Your task to perform on an android device: toggle notification dots Image 0: 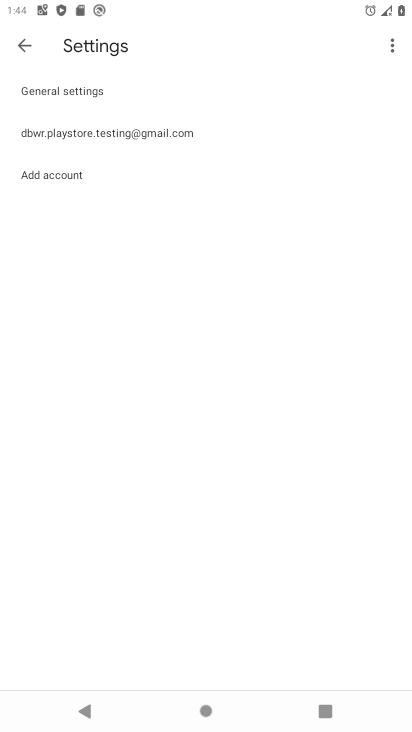
Step 0: press back button
Your task to perform on an android device: toggle notification dots Image 1: 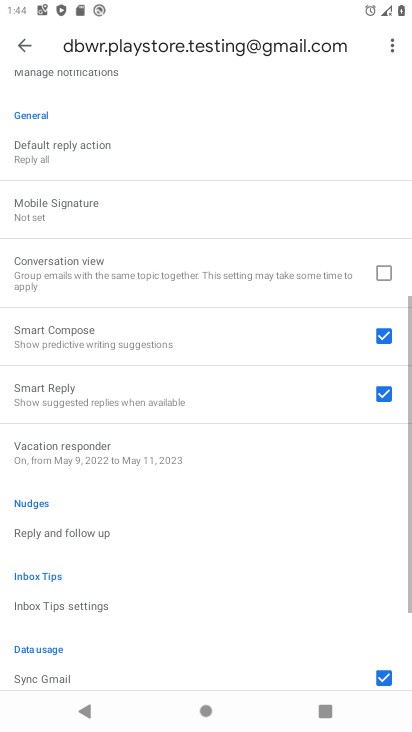
Step 1: press back button
Your task to perform on an android device: toggle notification dots Image 2: 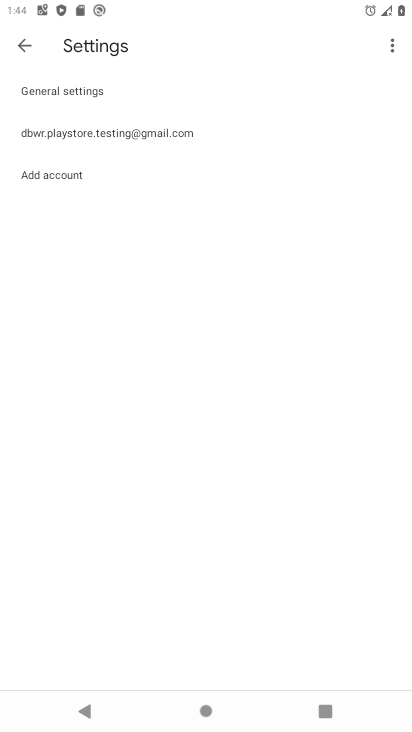
Step 2: press home button
Your task to perform on an android device: toggle notification dots Image 3: 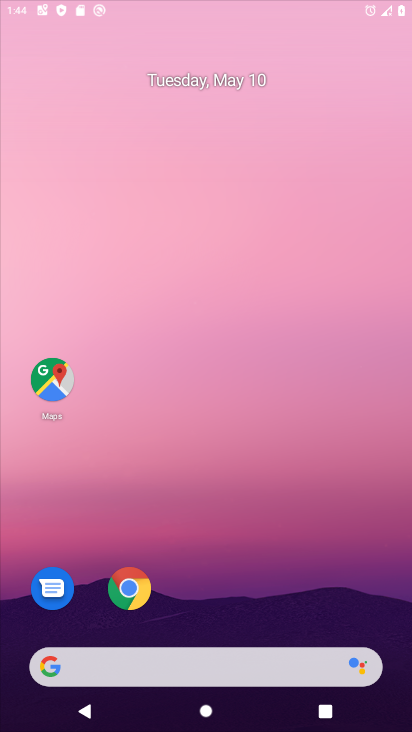
Step 3: drag from (256, 646) to (292, 251)
Your task to perform on an android device: toggle notification dots Image 4: 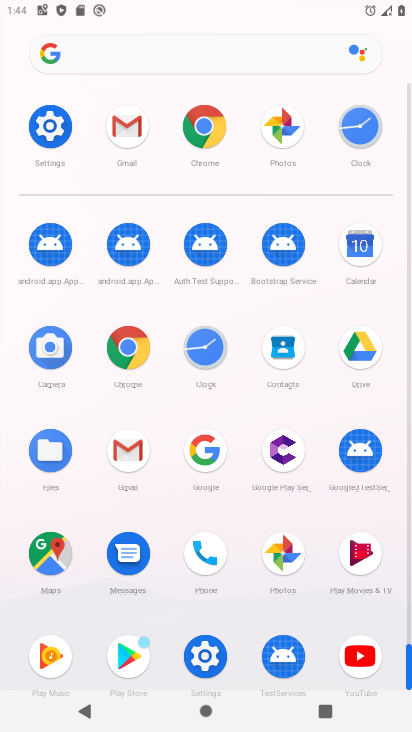
Step 4: click (55, 114)
Your task to perform on an android device: toggle notification dots Image 5: 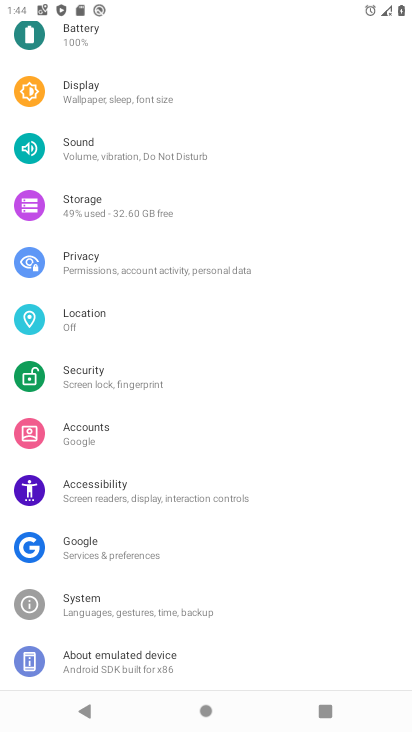
Step 5: drag from (196, 109) to (197, 544)
Your task to perform on an android device: toggle notification dots Image 6: 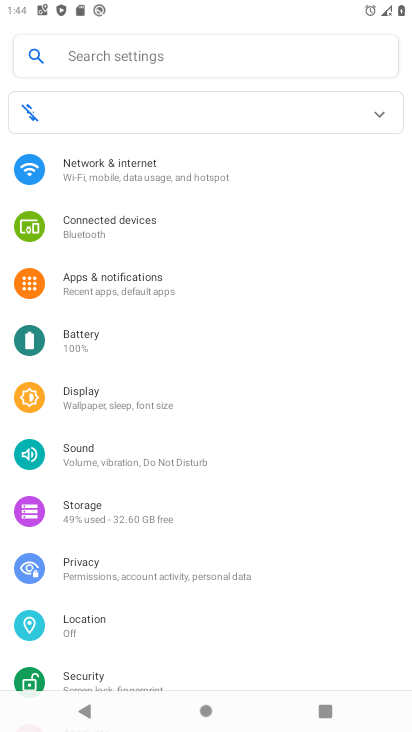
Step 6: click (209, 58)
Your task to perform on an android device: toggle notification dots Image 7: 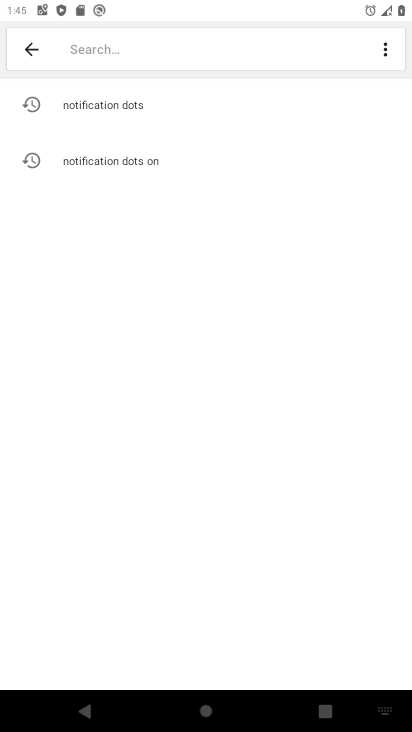
Step 7: click (121, 97)
Your task to perform on an android device: toggle notification dots Image 8: 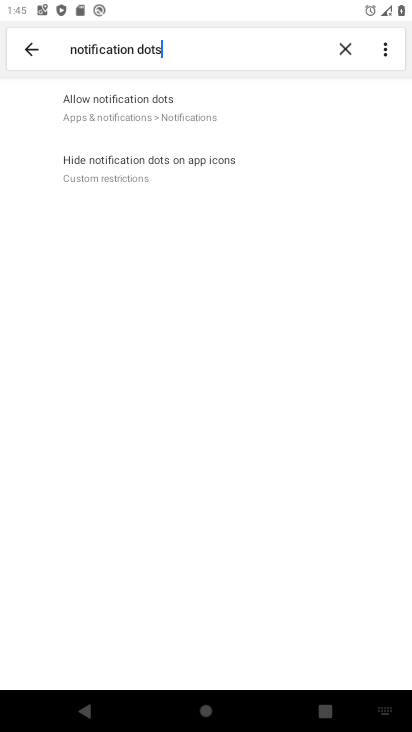
Step 8: click (174, 104)
Your task to perform on an android device: toggle notification dots Image 9: 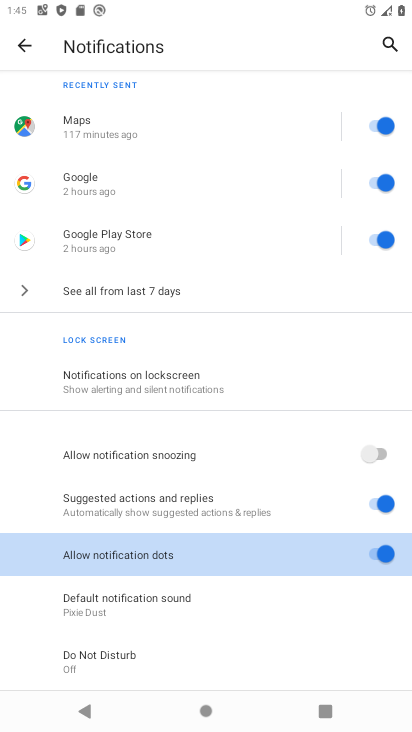
Step 9: click (366, 555)
Your task to perform on an android device: toggle notification dots Image 10: 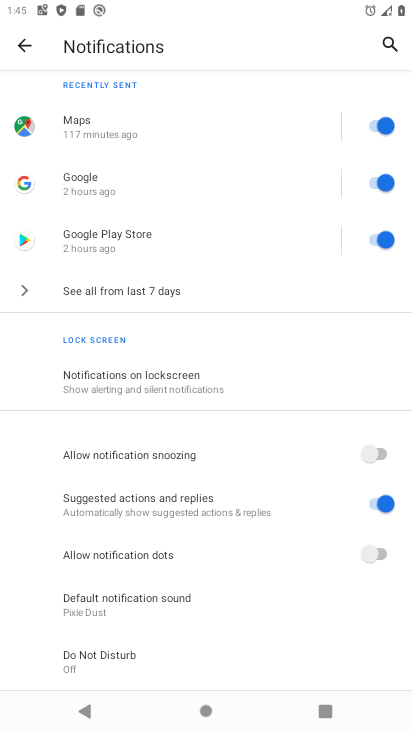
Step 10: task complete